Your task to perform on an android device: Open Amazon Image 0: 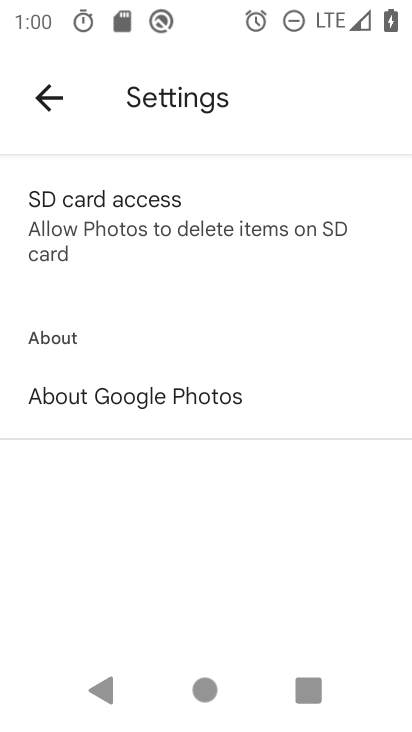
Step 0: press home button
Your task to perform on an android device: Open Amazon Image 1: 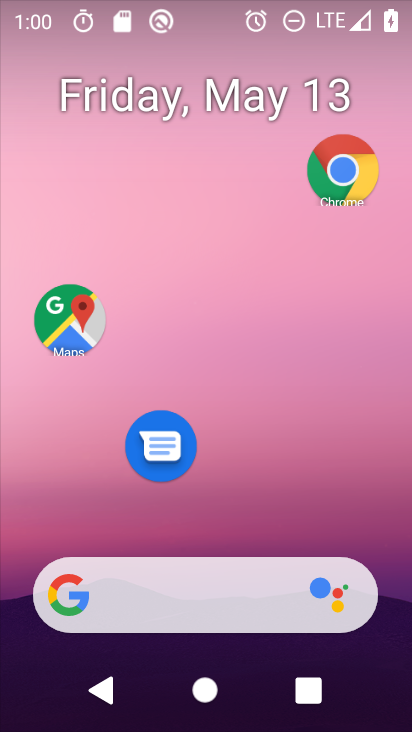
Step 1: drag from (289, 575) to (333, 42)
Your task to perform on an android device: Open Amazon Image 2: 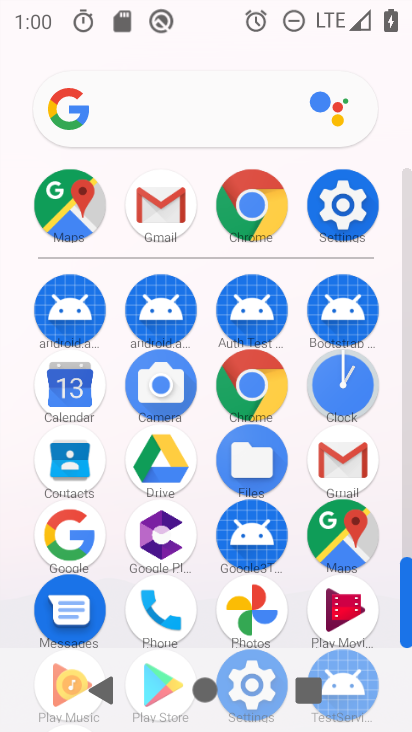
Step 2: click (251, 393)
Your task to perform on an android device: Open Amazon Image 3: 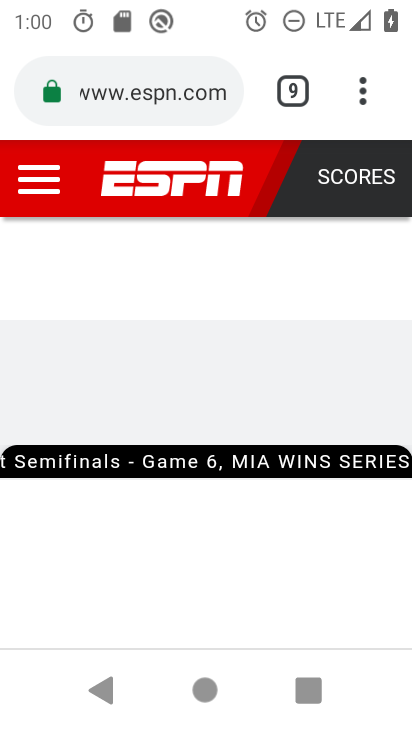
Step 3: drag from (367, 94) to (128, 159)
Your task to perform on an android device: Open Amazon Image 4: 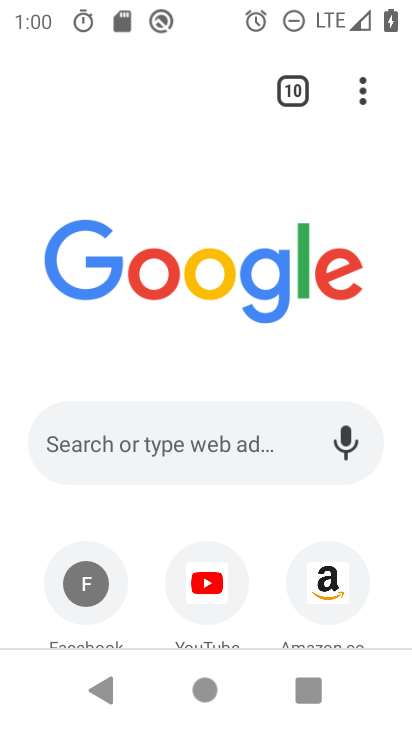
Step 4: drag from (272, 567) to (282, 209)
Your task to perform on an android device: Open Amazon Image 5: 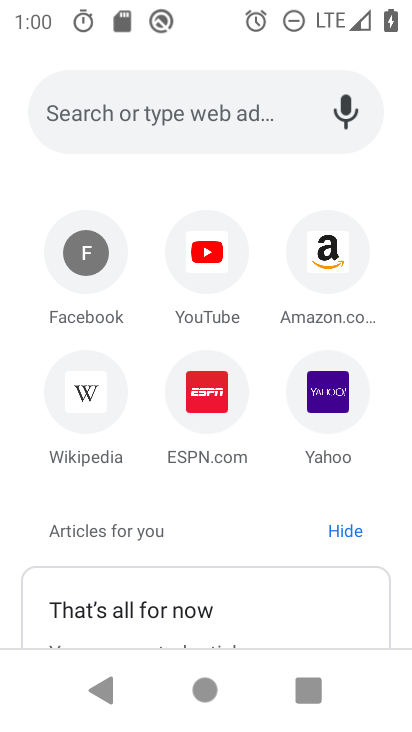
Step 5: click (348, 246)
Your task to perform on an android device: Open Amazon Image 6: 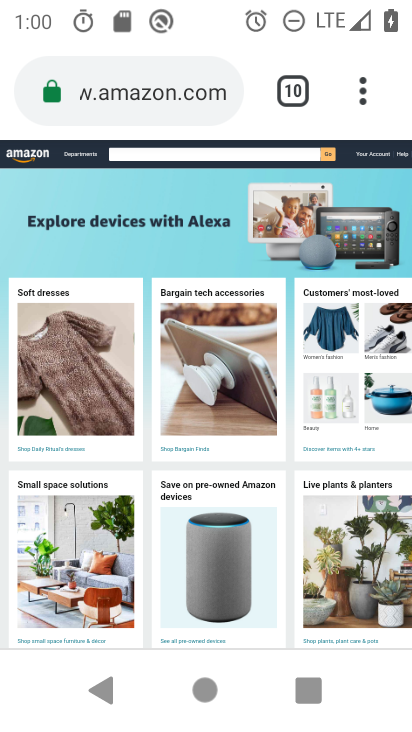
Step 6: task complete